Your task to perform on an android device: turn off location history Image 0: 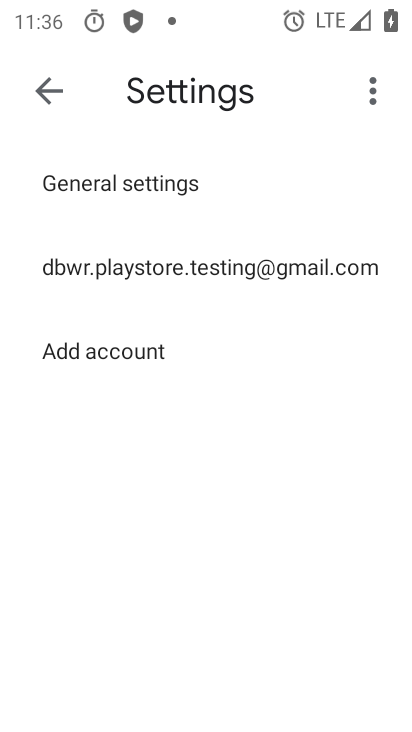
Step 0: press home button
Your task to perform on an android device: turn off location history Image 1: 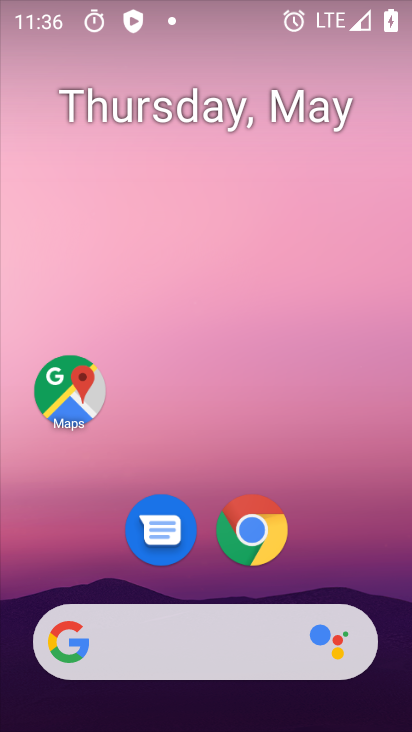
Step 1: drag from (213, 578) to (256, 48)
Your task to perform on an android device: turn off location history Image 2: 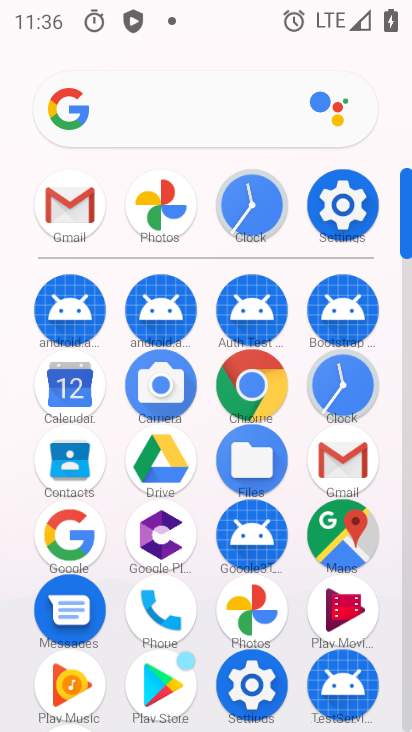
Step 2: click (332, 198)
Your task to perform on an android device: turn off location history Image 3: 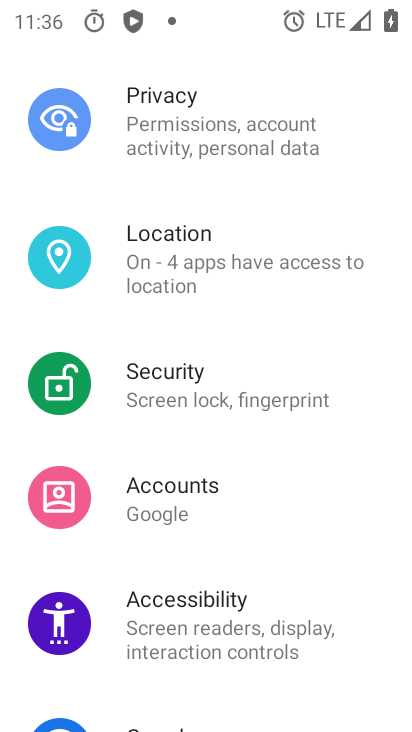
Step 3: click (194, 231)
Your task to perform on an android device: turn off location history Image 4: 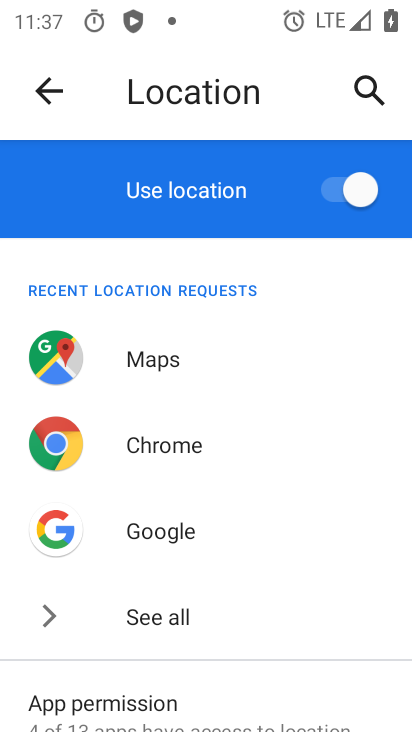
Step 4: drag from (206, 658) to (223, 394)
Your task to perform on an android device: turn off location history Image 5: 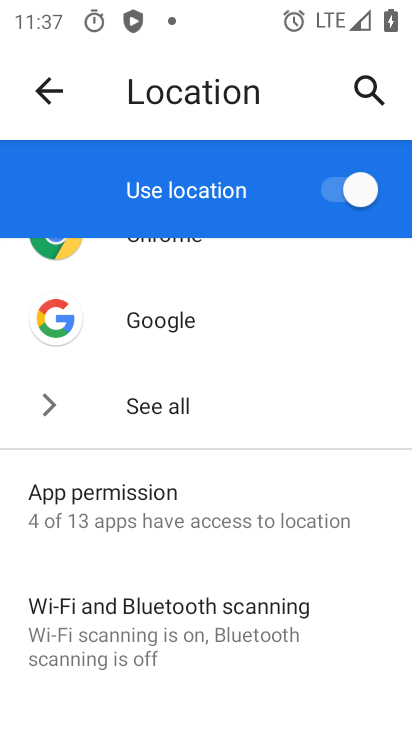
Step 5: drag from (179, 595) to (239, 212)
Your task to perform on an android device: turn off location history Image 6: 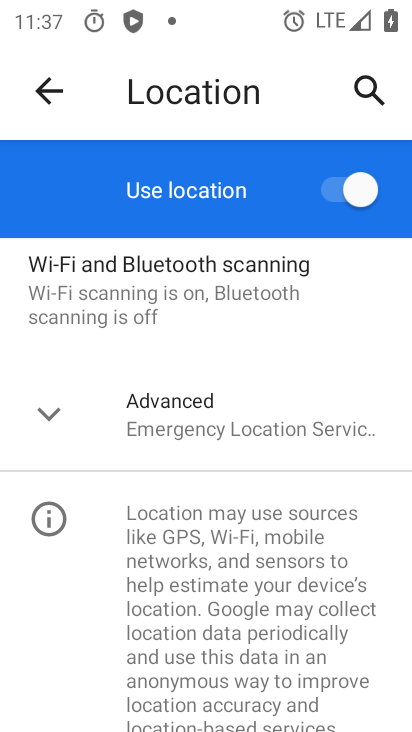
Step 6: click (215, 398)
Your task to perform on an android device: turn off location history Image 7: 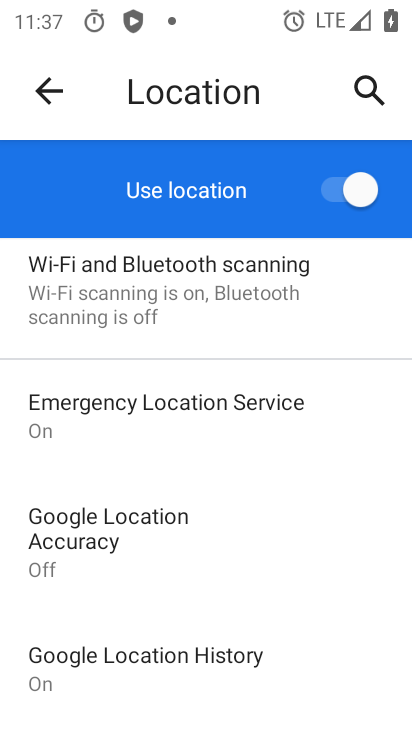
Step 7: click (129, 658)
Your task to perform on an android device: turn off location history Image 8: 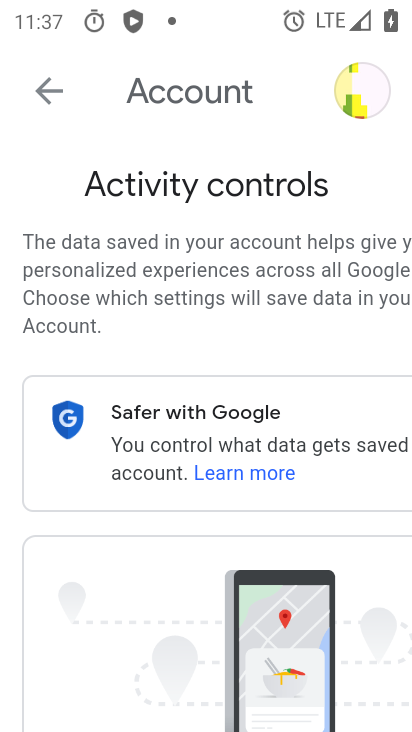
Step 8: drag from (244, 612) to (283, 121)
Your task to perform on an android device: turn off location history Image 9: 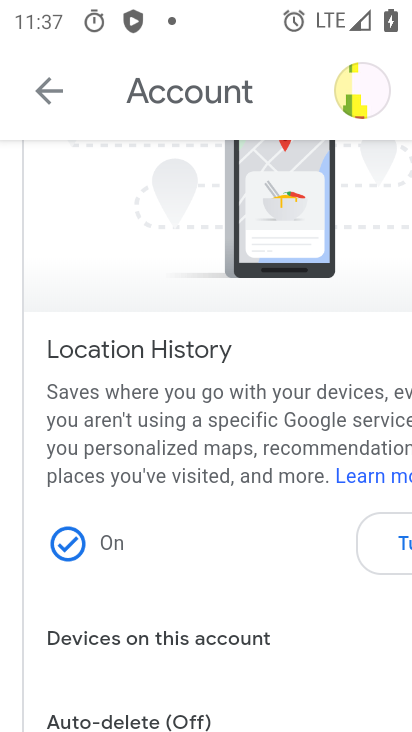
Step 9: click (388, 539)
Your task to perform on an android device: turn off location history Image 10: 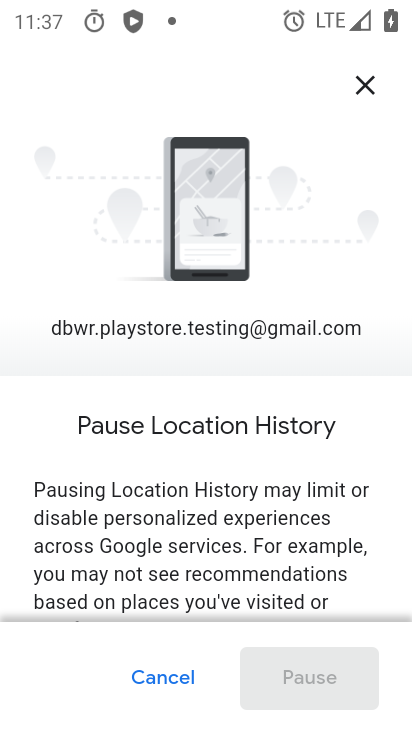
Step 10: drag from (231, 552) to (289, 147)
Your task to perform on an android device: turn off location history Image 11: 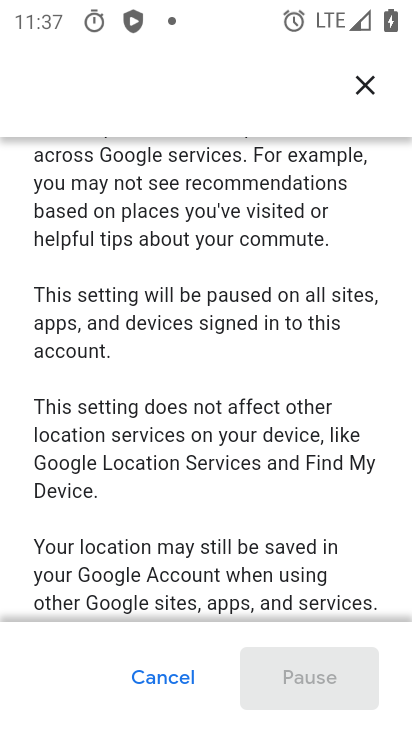
Step 11: drag from (290, 569) to (236, 134)
Your task to perform on an android device: turn off location history Image 12: 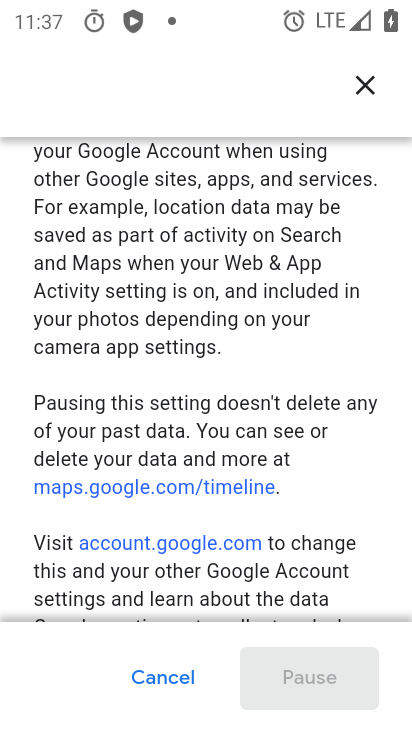
Step 12: drag from (134, 538) to (137, 233)
Your task to perform on an android device: turn off location history Image 13: 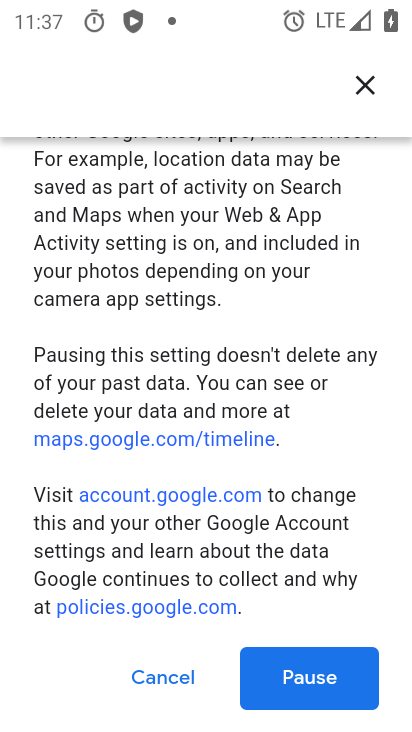
Step 13: click (324, 679)
Your task to perform on an android device: turn off location history Image 14: 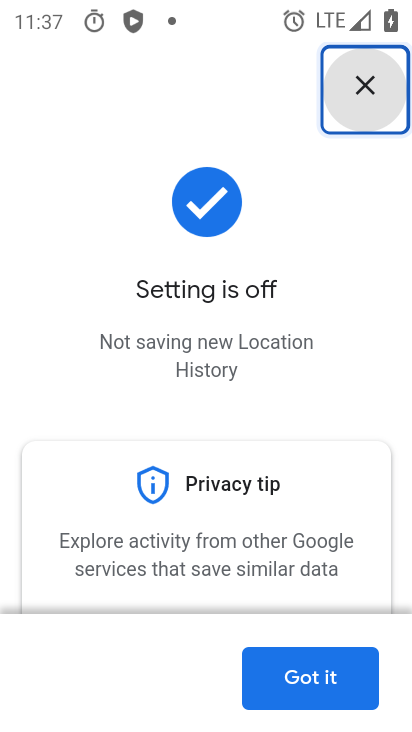
Step 14: click (324, 679)
Your task to perform on an android device: turn off location history Image 15: 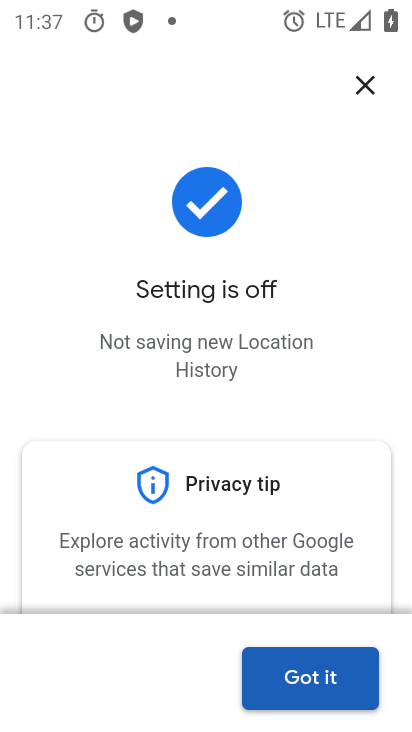
Step 15: task complete